Your task to perform on an android device: change the clock display to show seconds Image 0: 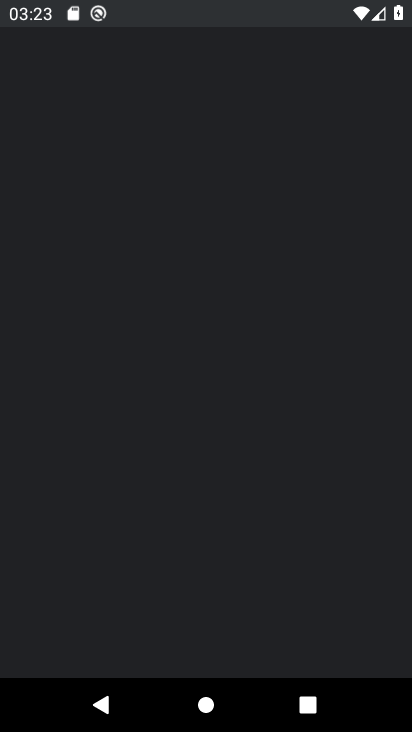
Step 0: drag from (256, 584) to (274, 390)
Your task to perform on an android device: change the clock display to show seconds Image 1: 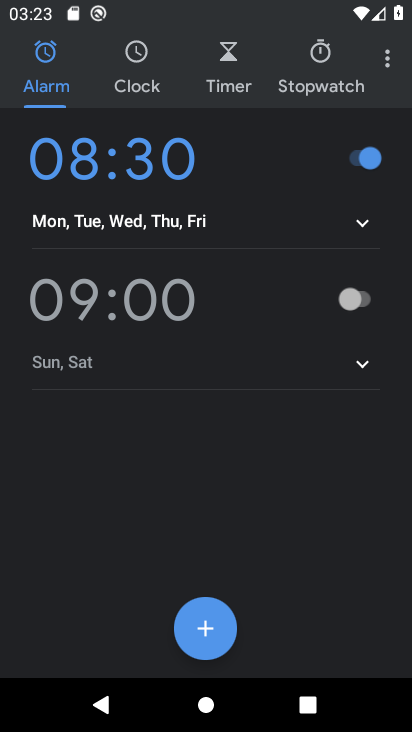
Step 1: press home button
Your task to perform on an android device: change the clock display to show seconds Image 2: 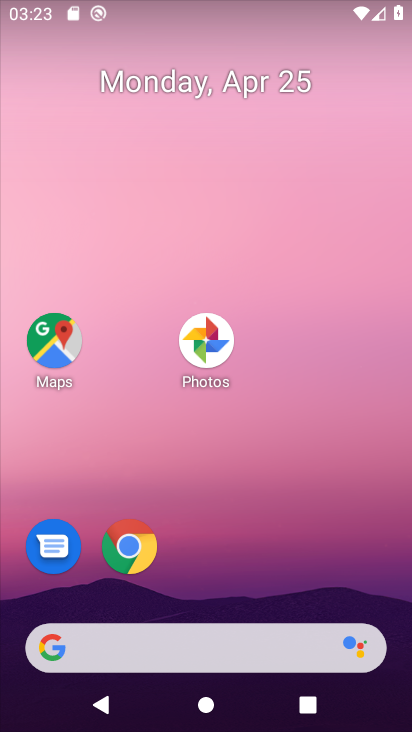
Step 2: drag from (293, 526) to (306, 287)
Your task to perform on an android device: change the clock display to show seconds Image 3: 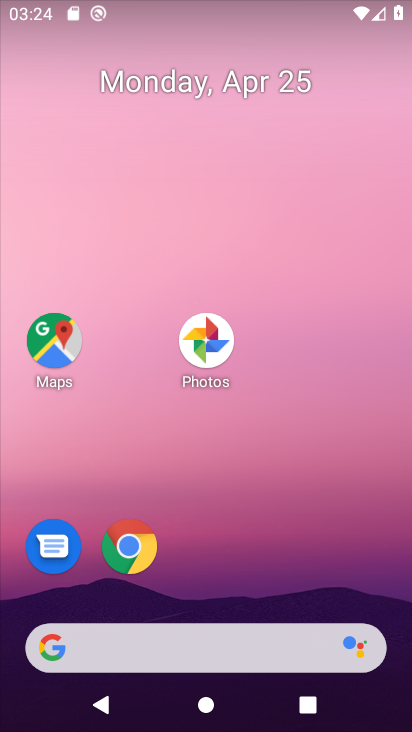
Step 3: drag from (263, 562) to (304, 224)
Your task to perform on an android device: change the clock display to show seconds Image 4: 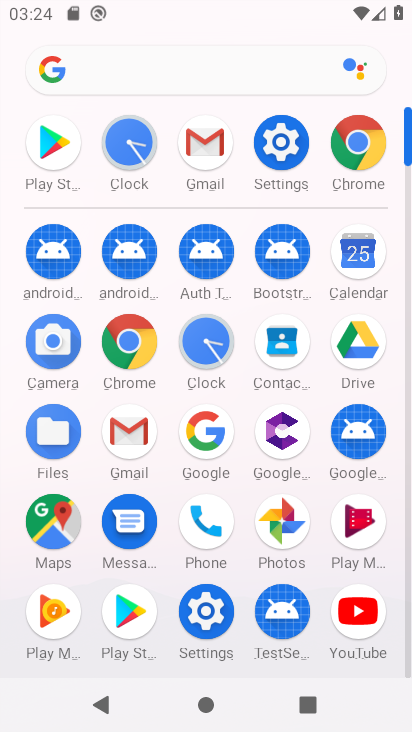
Step 4: click (205, 343)
Your task to perform on an android device: change the clock display to show seconds Image 5: 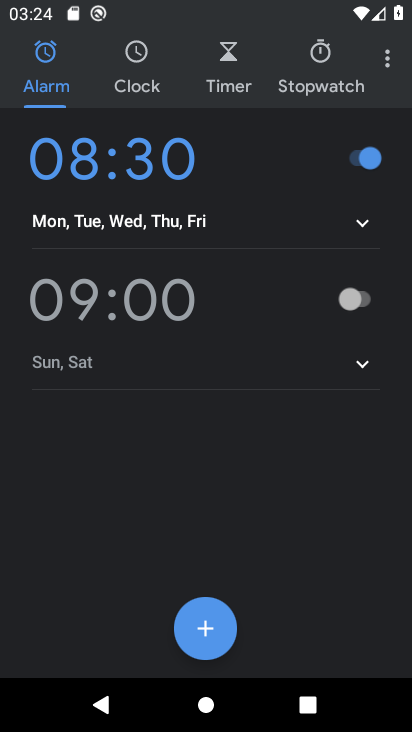
Step 5: click (387, 62)
Your task to perform on an android device: change the clock display to show seconds Image 6: 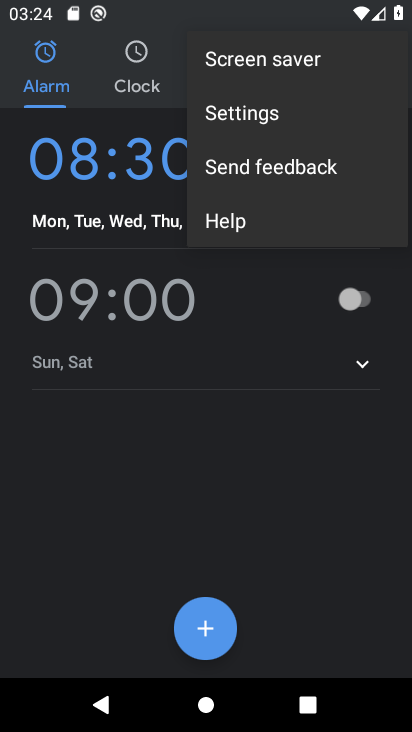
Step 6: click (273, 108)
Your task to perform on an android device: change the clock display to show seconds Image 7: 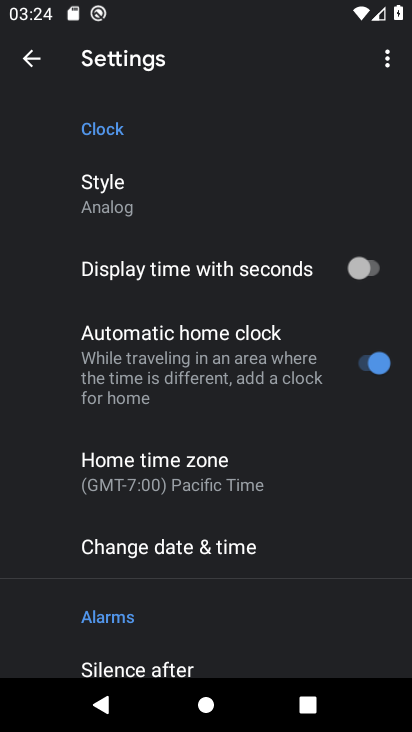
Step 7: click (358, 260)
Your task to perform on an android device: change the clock display to show seconds Image 8: 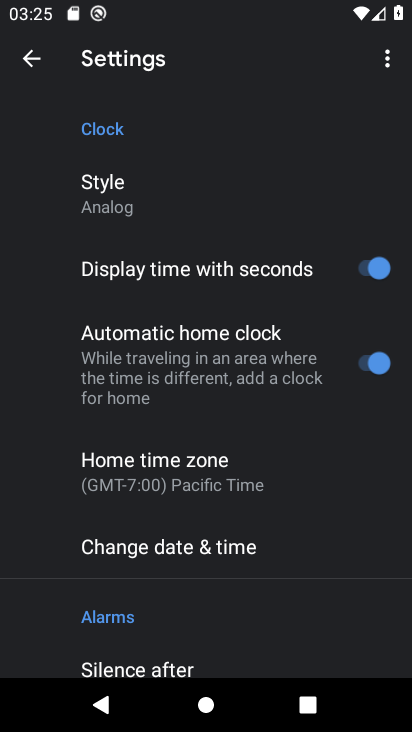
Step 8: task complete